Your task to perform on an android device: toggle data saver in the chrome app Image 0: 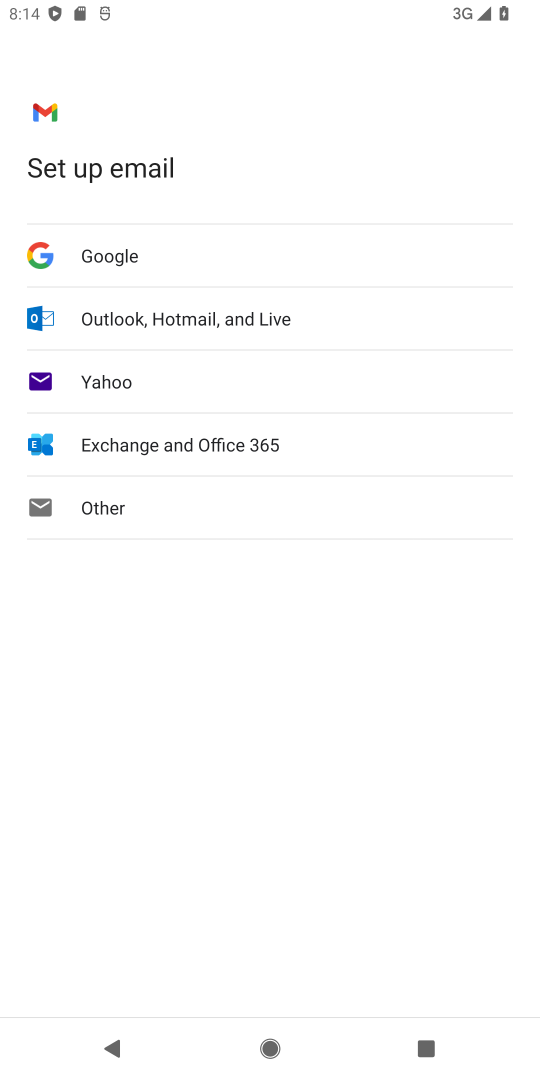
Step 0: press home button
Your task to perform on an android device: toggle data saver in the chrome app Image 1: 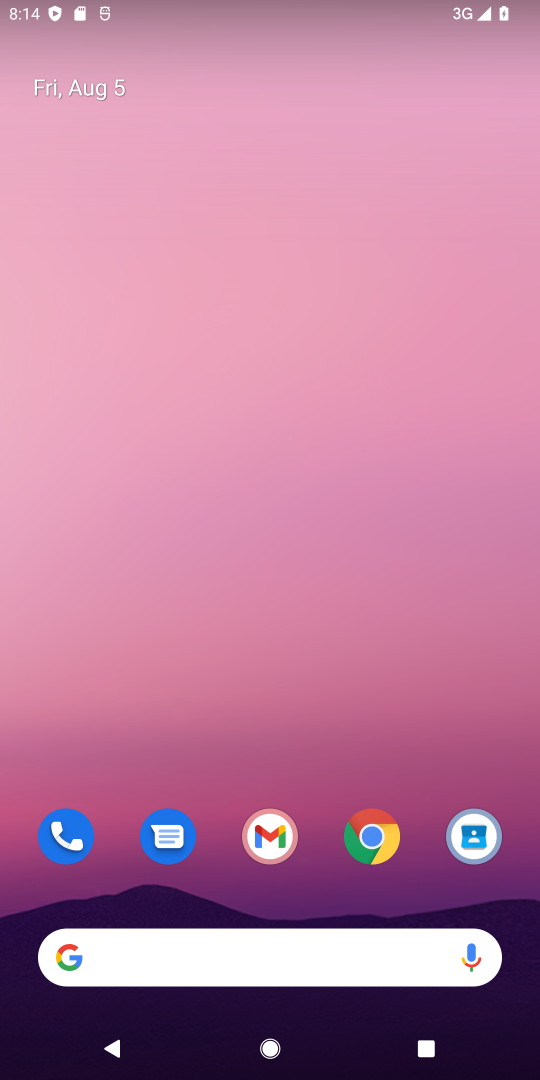
Step 1: click (372, 833)
Your task to perform on an android device: toggle data saver in the chrome app Image 2: 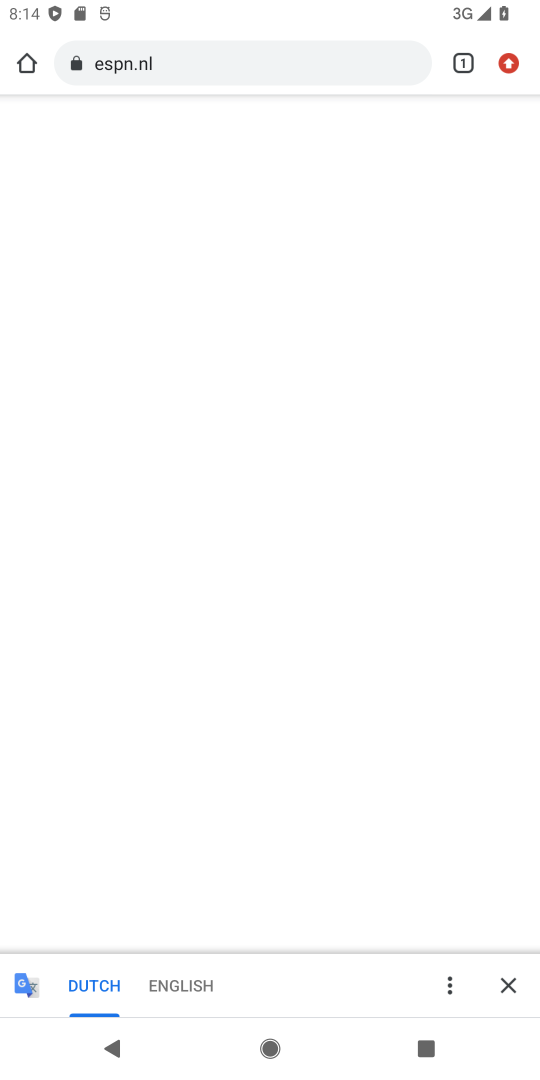
Step 2: click (512, 57)
Your task to perform on an android device: toggle data saver in the chrome app Image 3: 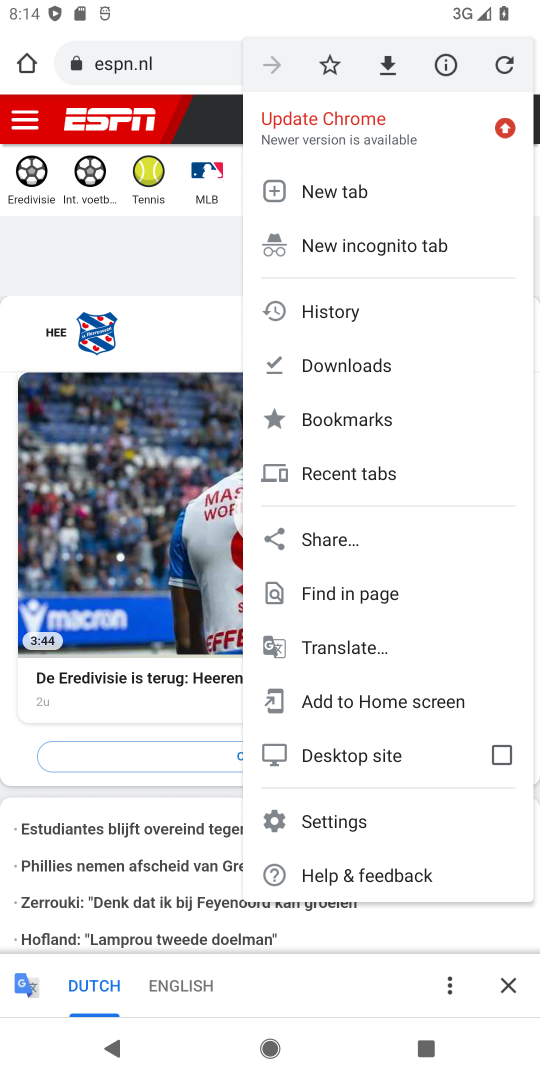
Step 3: click (328, 817)
Your task to perform on an android device: toggle data saver in the chrome app Image 4: 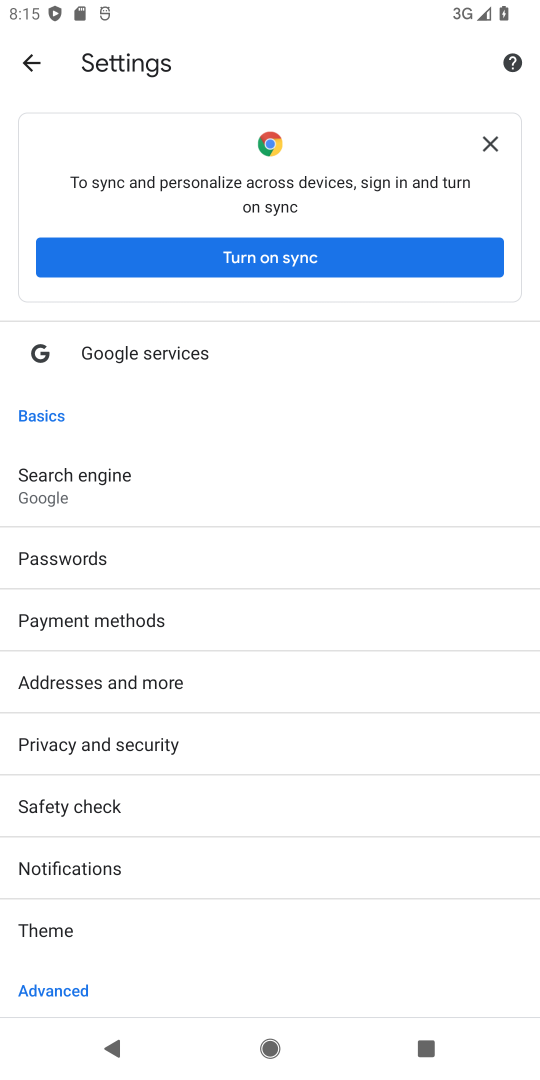
Step 4: drag from (263, 895) to (241, 301)
Your task to perform on an android device: toggle data saver in the chrome app Image 5: 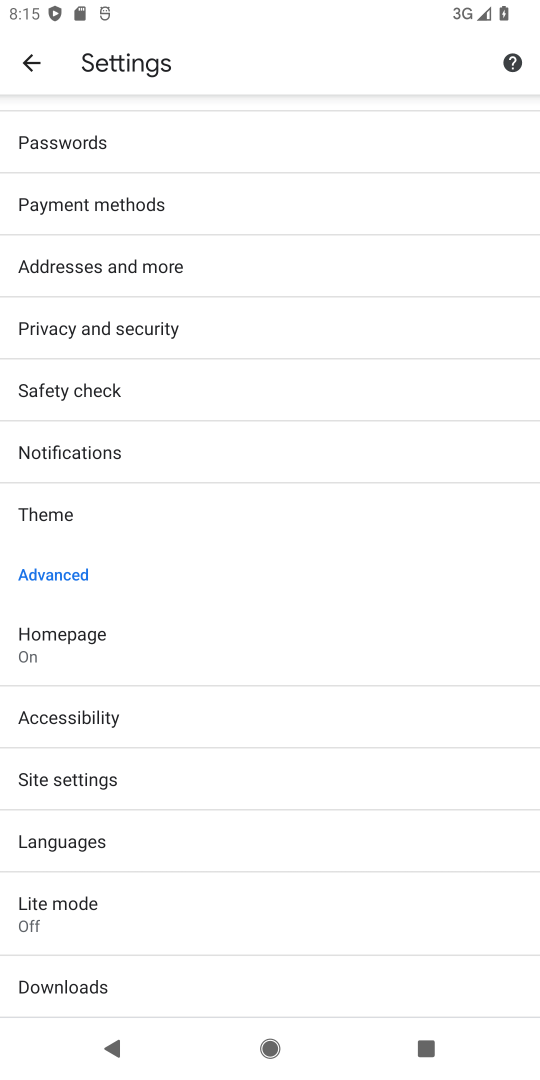
Step 5: click (72, 906)
Your task to perform on an android device: toggle data saver in the chrome app Image 6: 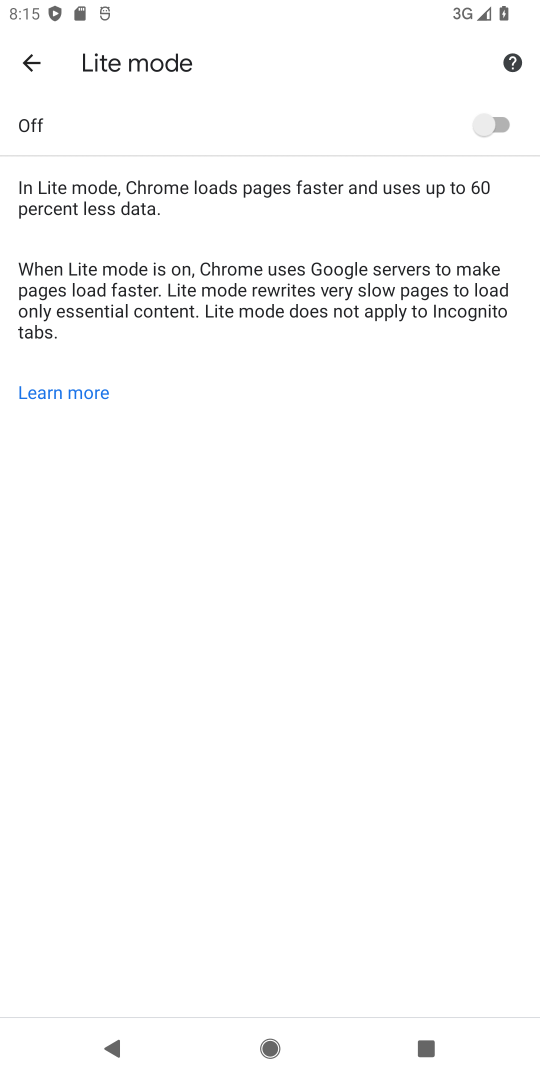
Step 6: click (482, 125)
Your task to perform on an android device: toggle data saver in the chrome app Image 7: 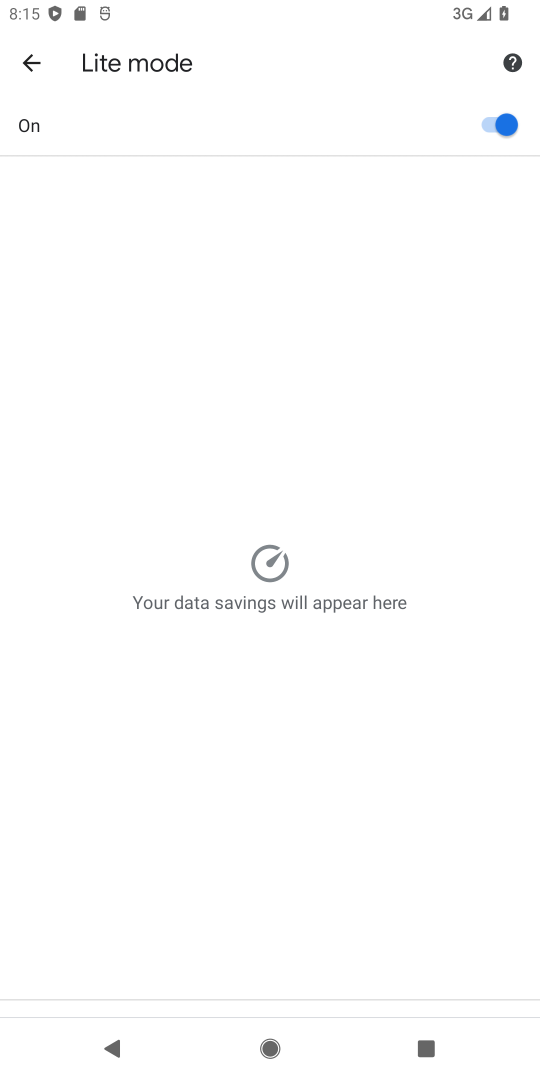
Step 7: task complete